Your task to perform on an android device: check out phone information Image 0: 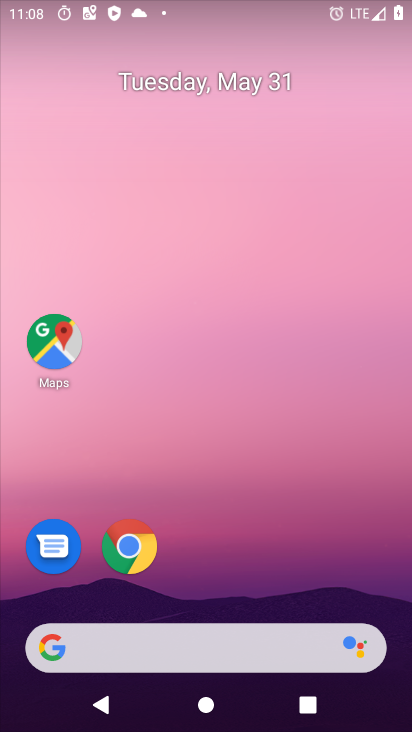
Step 0: drag from (304, 506) to (319, 127)
Your task to perform on an android device: check out phone information Image 1: 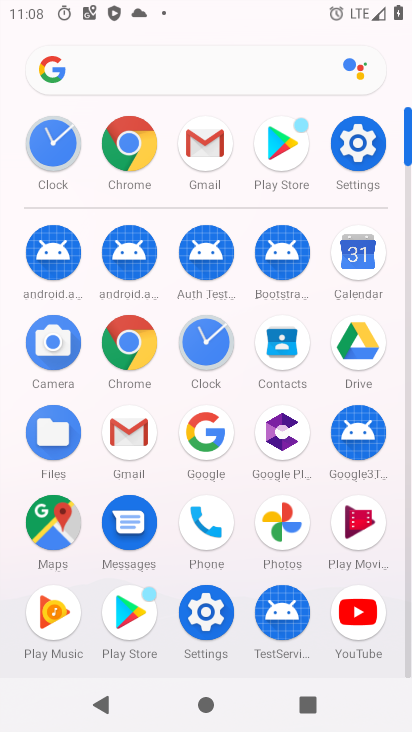
Step 1: click (365, 146)
Your task to perform on an android device: check out phone information Image 2: 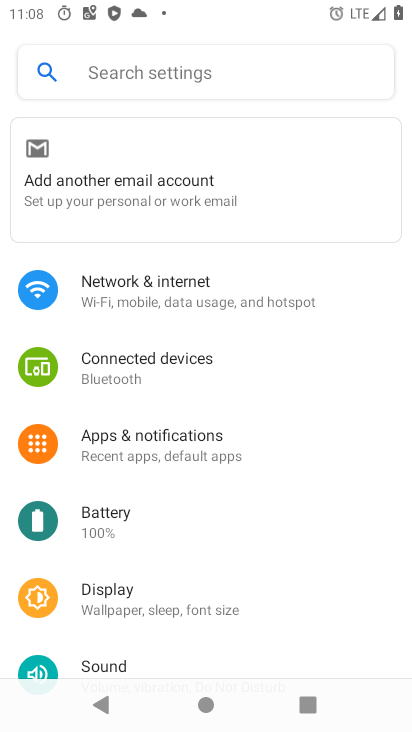
Step 2: drag from (225, 510) to (246, 201)
Your task to perform on an android device: check out phone information Image 3: 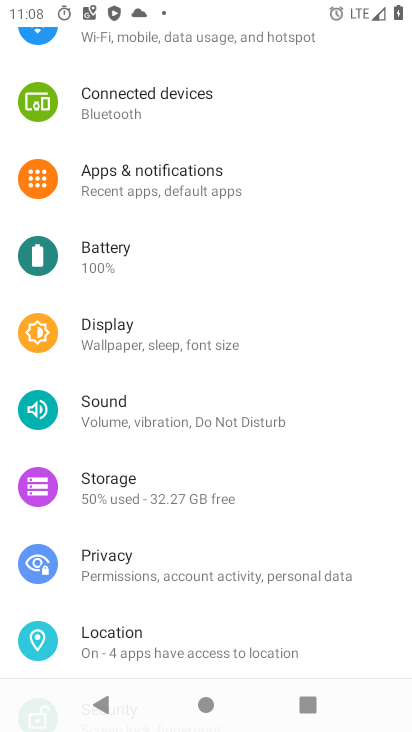
Step 3: drag from (204, 514) to (232, 119)
Your task to perform on an android device: check out phone information Image 4: 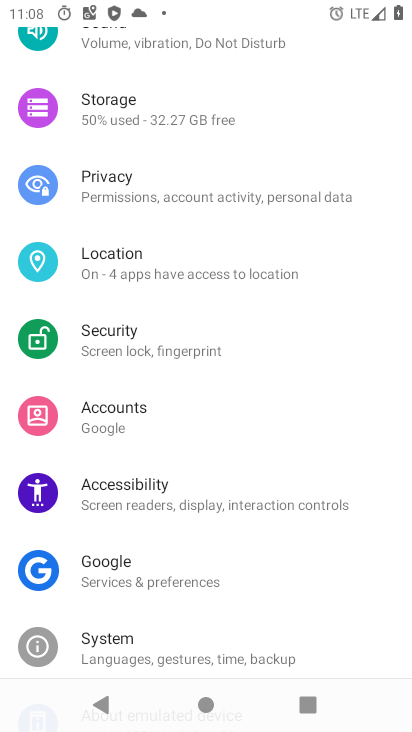
Step 4: drag from (224, 417) to (235, 113)
Your task to perform on an android device: check out phone information Image 5: 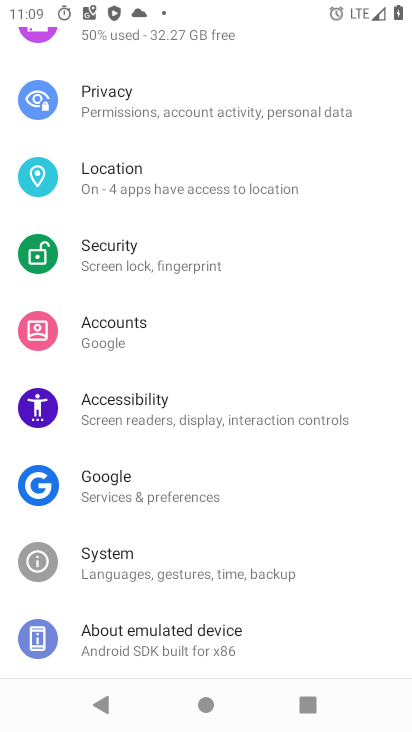
Step 5: click (221, 612)
Your task to perform on an android device: check out phone information Image 6: 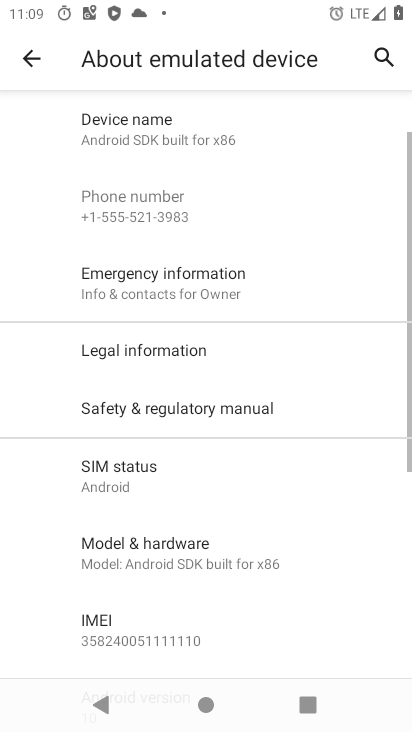
Step 6: drag from (211, 517) to (260, 179)
Your task to perform on an android device: check out phone information Image 7: 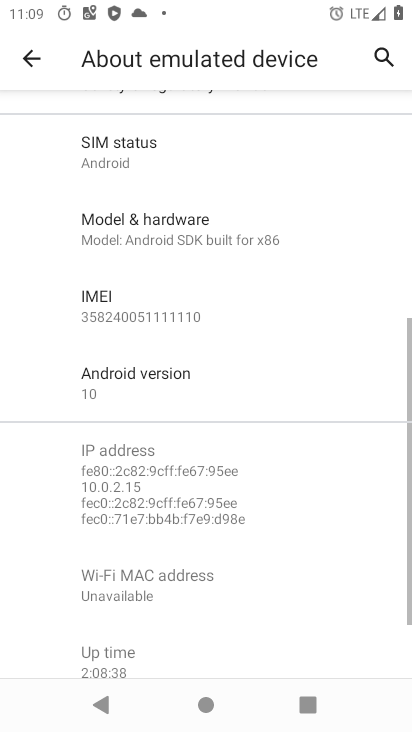
Step 7: drag from (208, 492) to (275, 188)
Your task to perform on an android device: check out phone information Image 8: 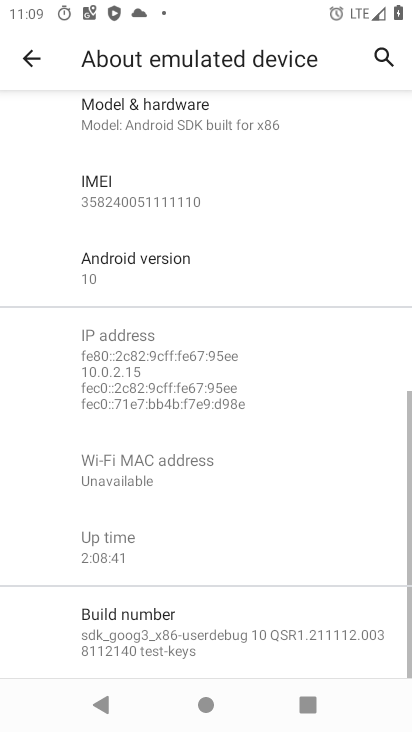
Step 8: drag from (283, 202) to (250, 546)
Your task to perform on an android device: check out phone information Image 9: 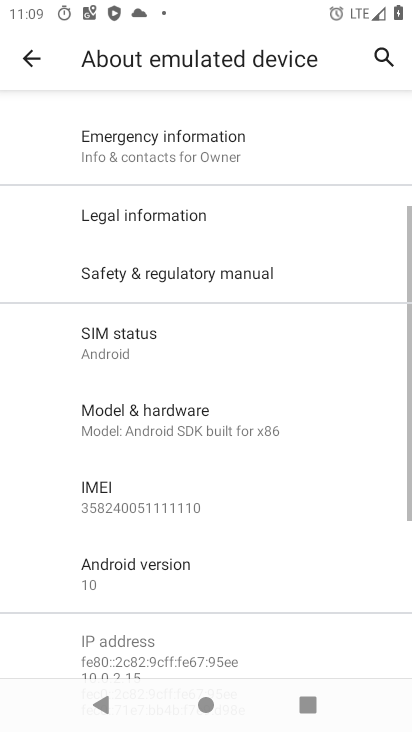
Step 9: click (248, 149)
Your task to perform on an android device: check out phone information Image 10: 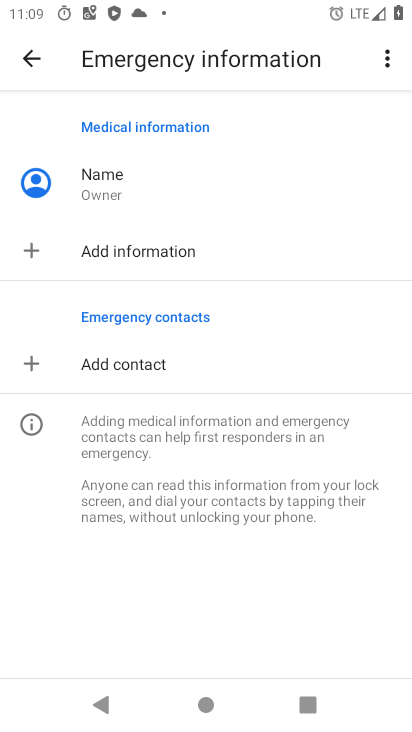
Step 10: task complete